Your task to perform on an android device: empty trash in the gmail app Image 0: 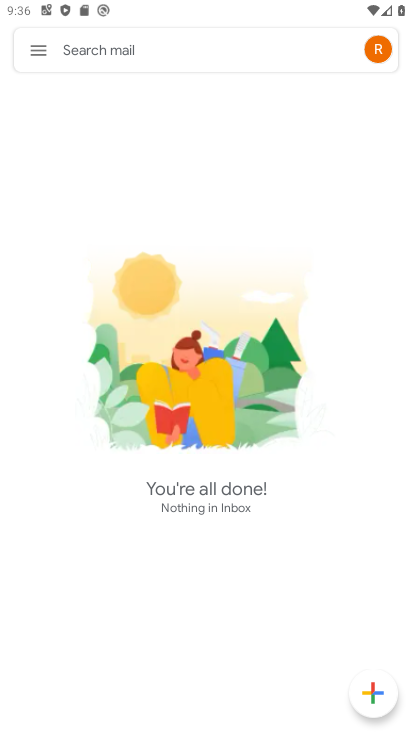
Step 0: click (44, 59)
Your task to perform on an android device: empty trash in the gmail app Image 1: 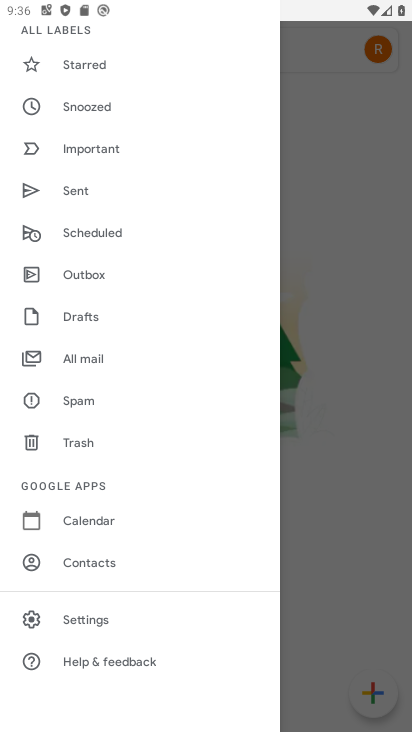
Step 1: click (79, 446)
Your task to perform on an android device: empty trash in the gmail app Image 2: 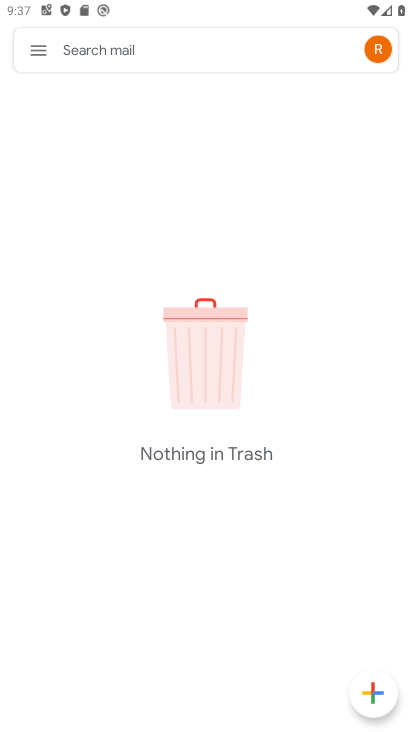
Step 2: task complete